Your task to perform on an android device: Open the calendar app, open the side menu, and click the "Day" option Image 0: 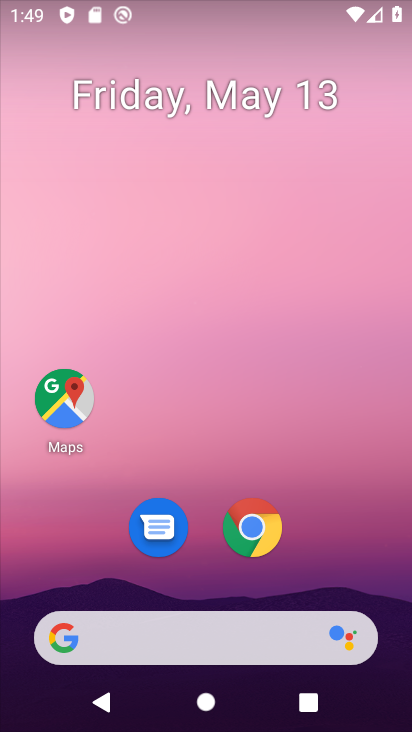
Step 0: drag from (323, 546) to (344, 125)
Your task to perform on an android device: Open the calendar app, open the side menu, and click the "Day" option Image 1: 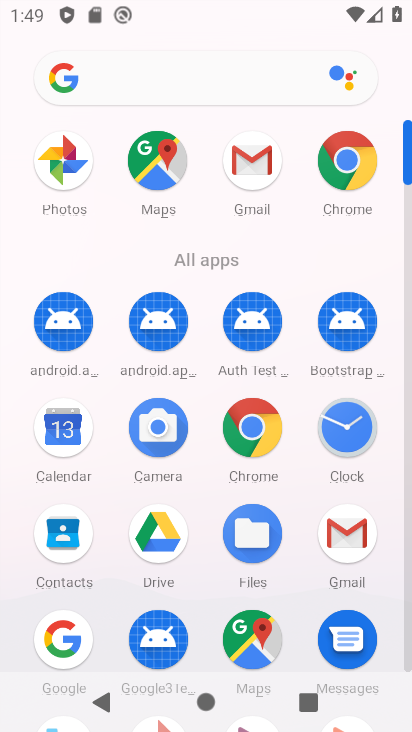
Step 1: click (49, 435)
Your task to perform on an android device: Open the calendar app, open the side menu, and click the "Day" option Image 2: 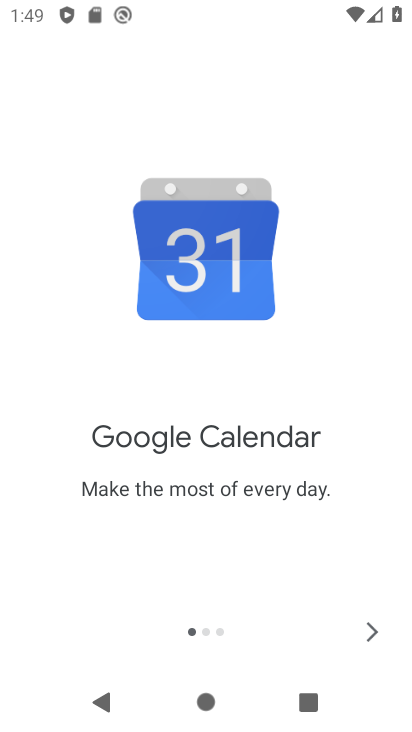
Step 2: click (361, 630)
Your task to perform on an android device: Open the calendar app, open the side menu, and click the "Day" option Image 3: 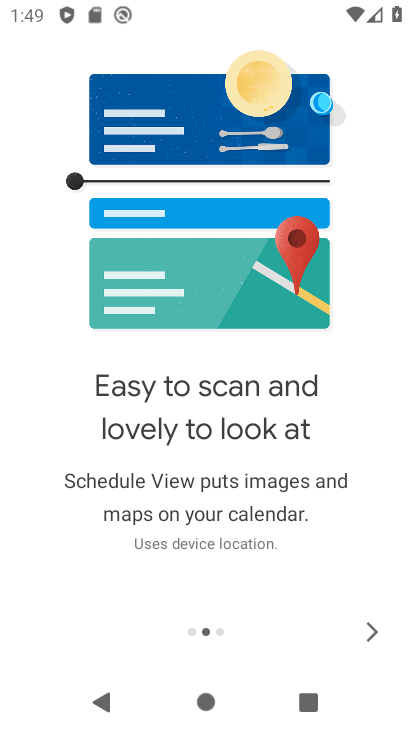
Step 3: click (368, 628)
Your task to perform on an android device: Open the calendar app, open the side menu, and click the "Day" option Image 4: 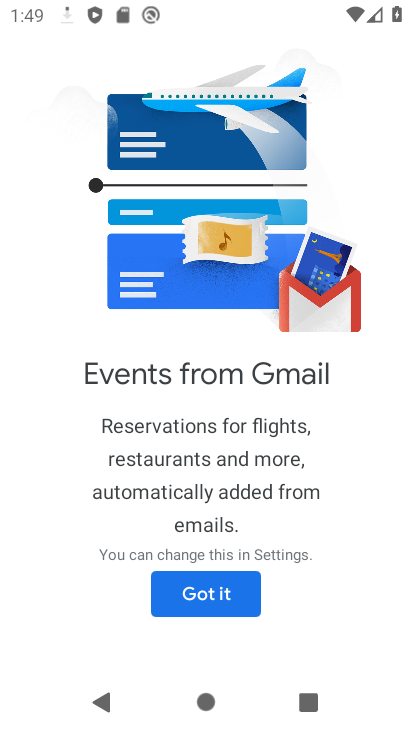
Step 4: click (220, 583)
Your task to perform on an android device: Open the calendar app, open the side menu, and click the "Day" option Image 5: 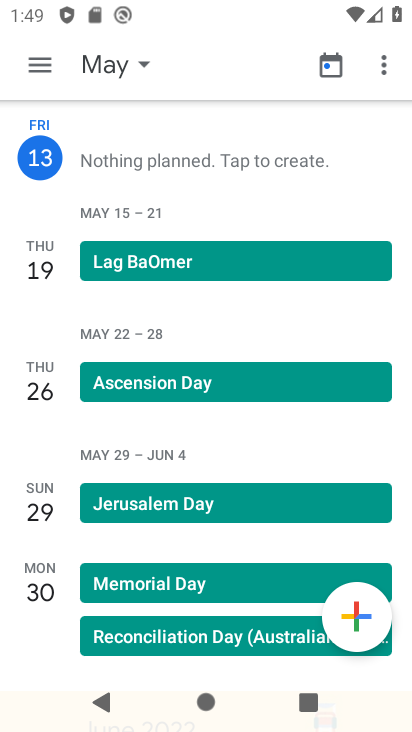
Step 5: click (42, 56)
Your task to perform on an android device: Open the calendar app, open the side menu, and click the "Day" option Image 6: 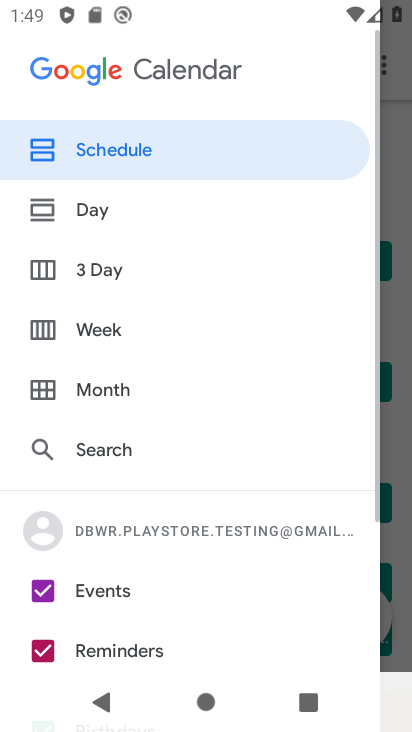
Step 6: click (63, 202)
Your task to perform on an android device: Open the calendar app, open the side menu, and click the "Day" option Image 7: 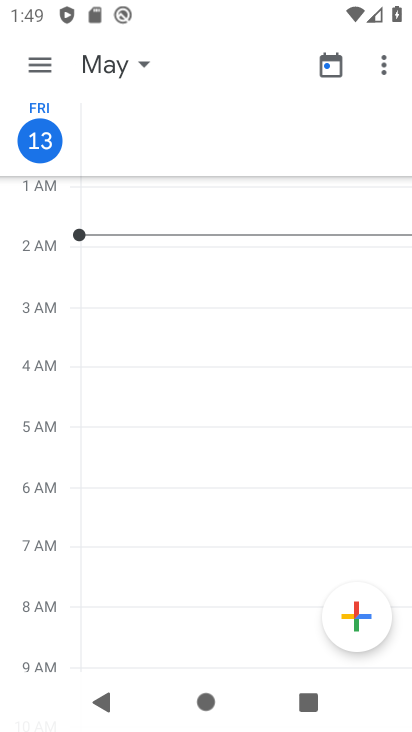
Step 7: task complete